Your task to perform on an android device: Open Yahoo.com Image 0: 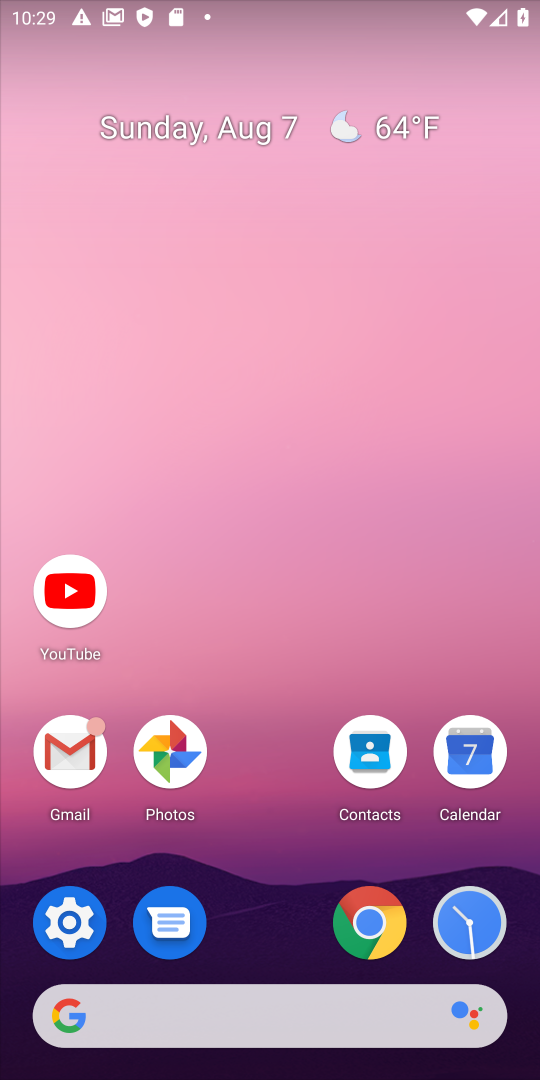
Step 0: click (164, 715)
Your task to perform on an android device: Open Yahoo.com Image 1: 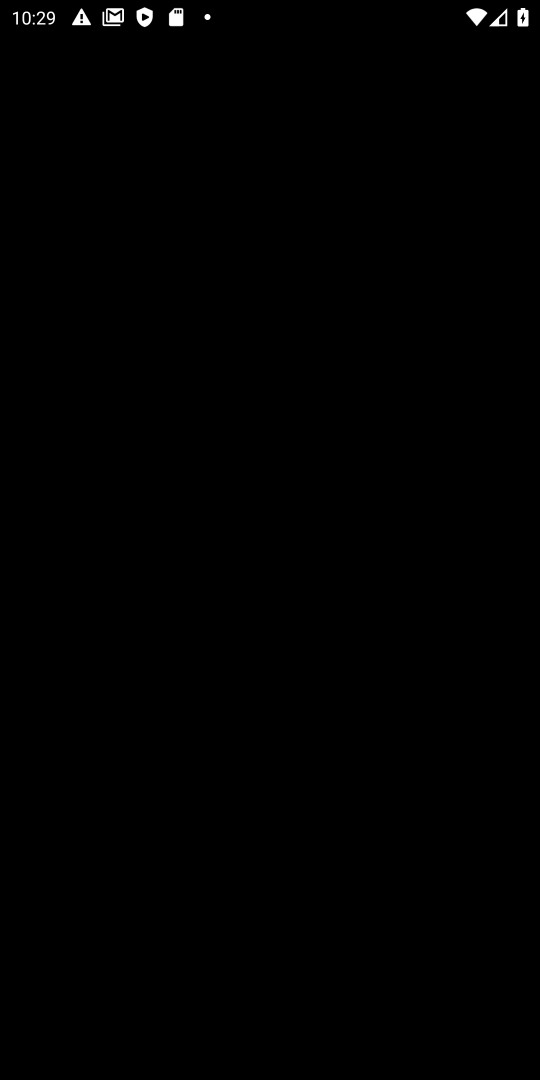
Step 1: press home button
Your task to perform on an android device: Open Yahoo.com Image 2: 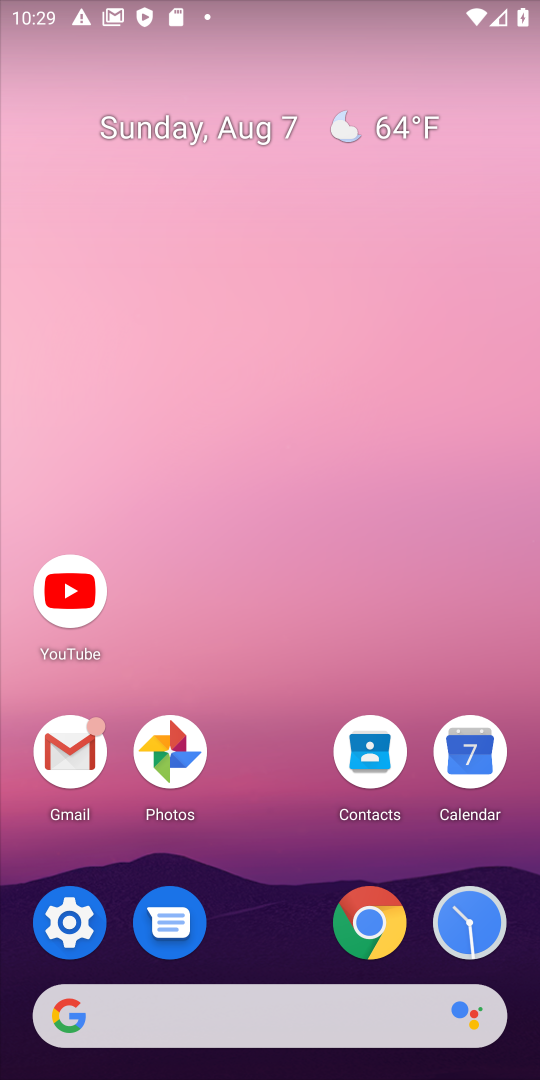
Step 2: click (372, 928)
Your task to perform on an android device: Open Yahoo.com Image 3: 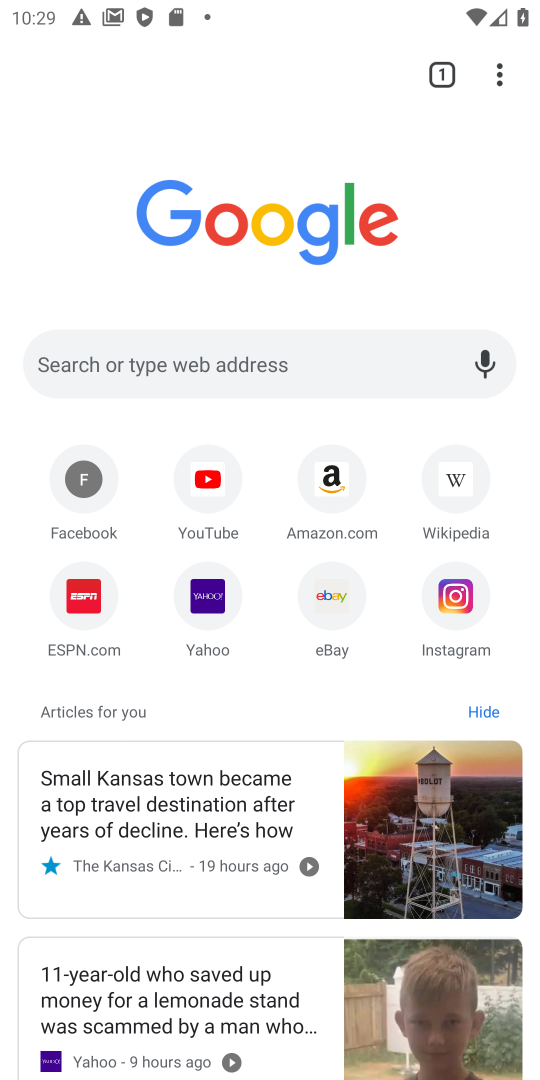
Step 3: click (211, 599)
Your task to perform on an android device: Open Yahoo.com Image 4: 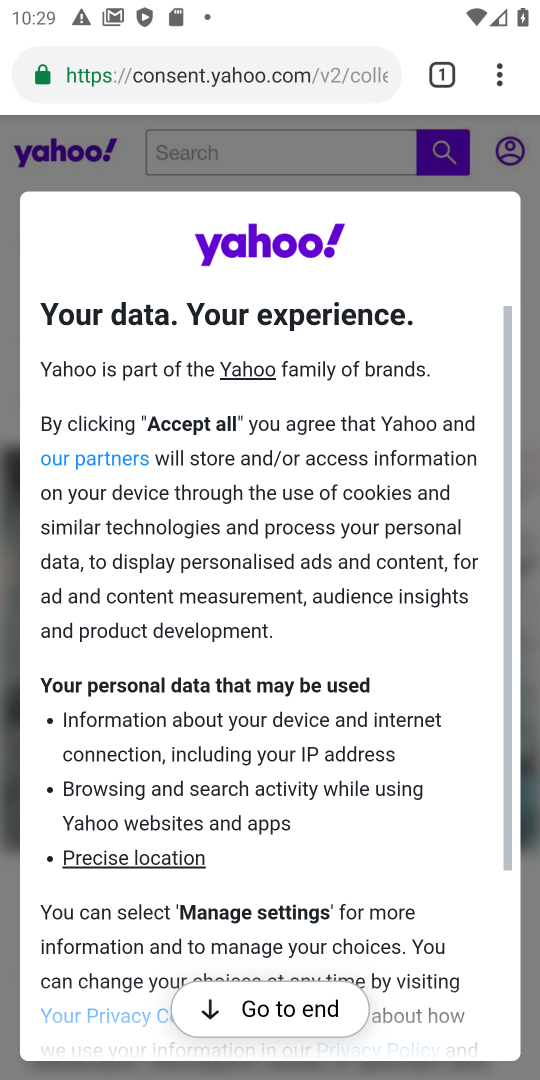
Step 4: click (234, 1003)
Your task to perform on an android device: Open Yahoo.com Image 5: 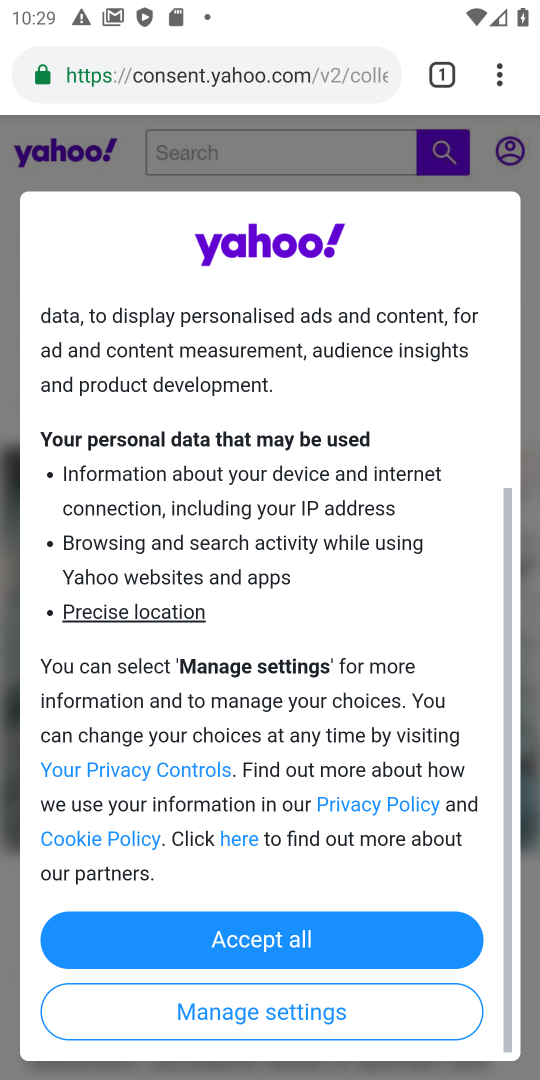
Step 5: click (272, 943)
Your task to perform on an android device: Open Yahoo.com Image 6: 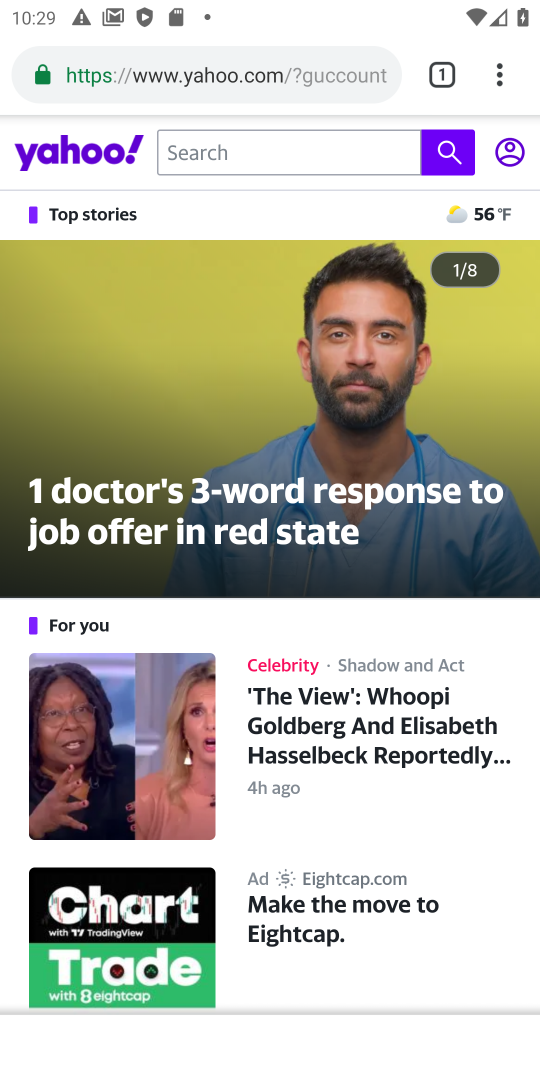
Step 6: task complete